Your task to perform on an android device: Add dell xps to the cart on costco, then select checkout. Image 0: 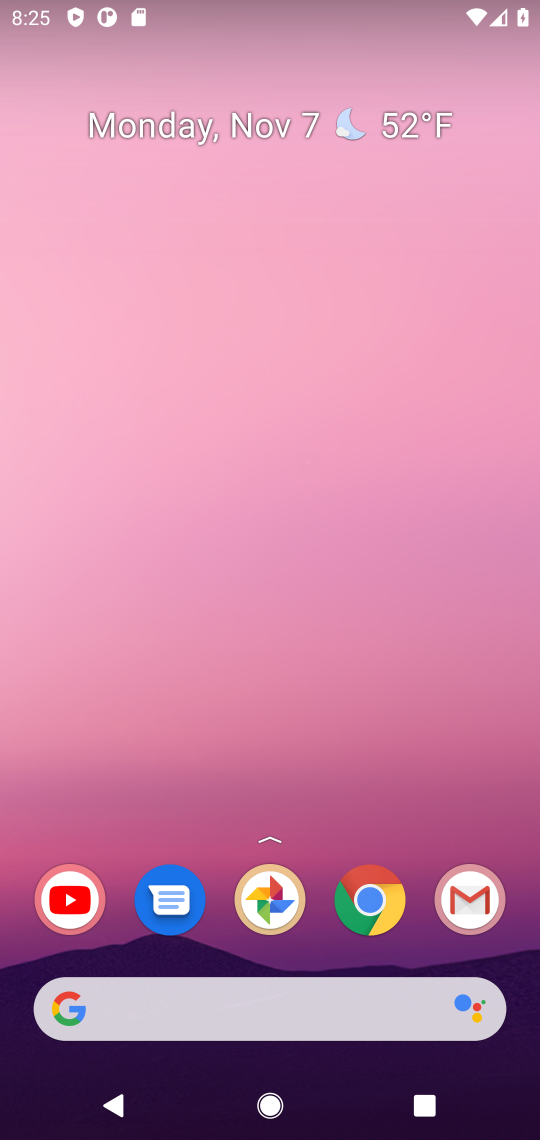
Step 0: click (252, 1012)
Your task to perform on an android device: Add dell xps to the cart on costco, then select checkout. Image 1: 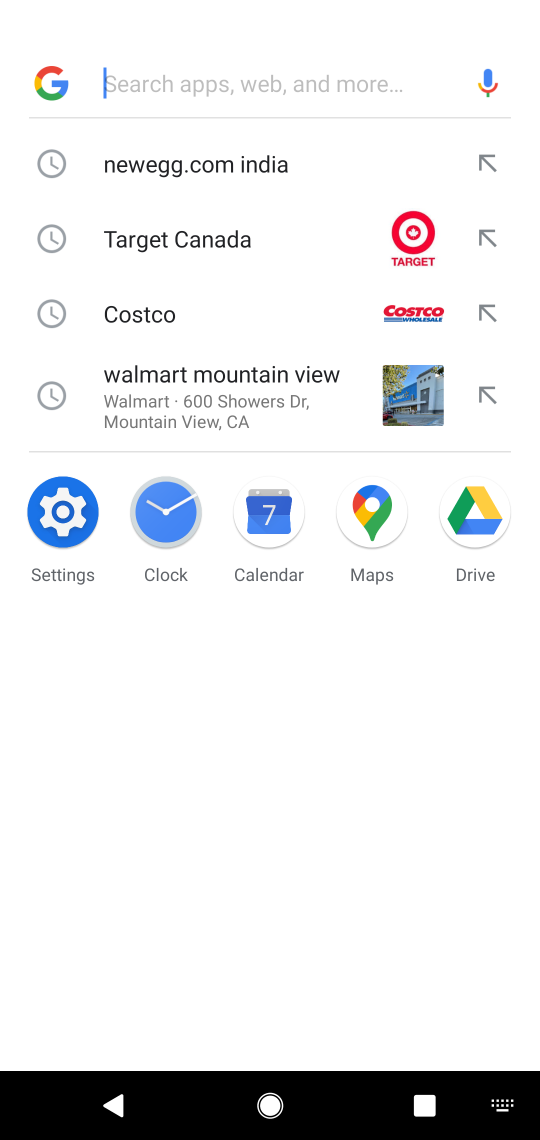
Step 1: click (280, 327)
Your task to perform on an android device: Add dell xps to the cart on costco, then select checkout. Image 2: 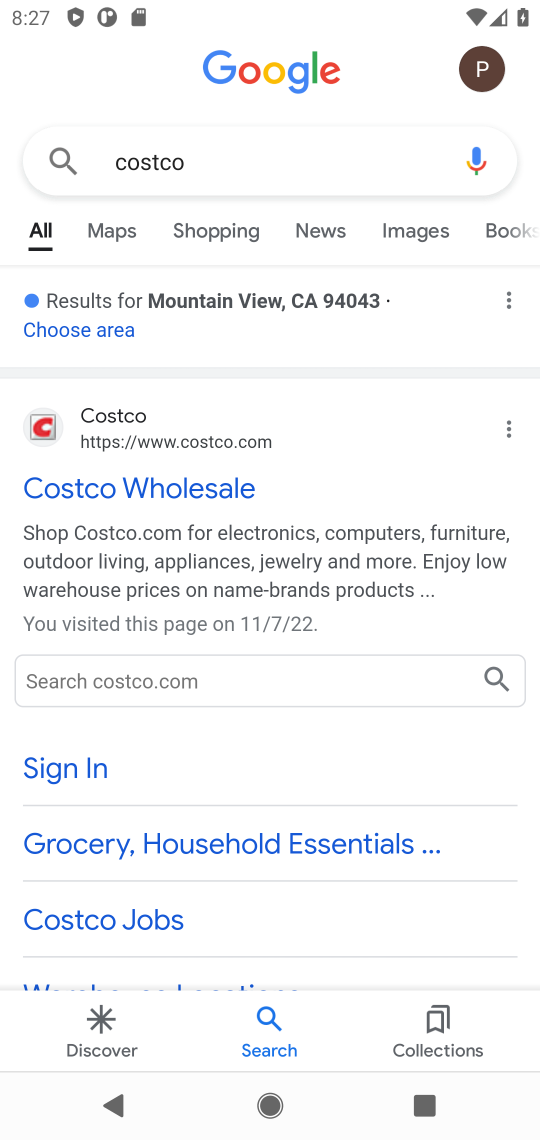
Step 2: click (151, 487)
Your task to perform on an android device: Add dell xps to the cart on costco, then select checkout. Image 3: 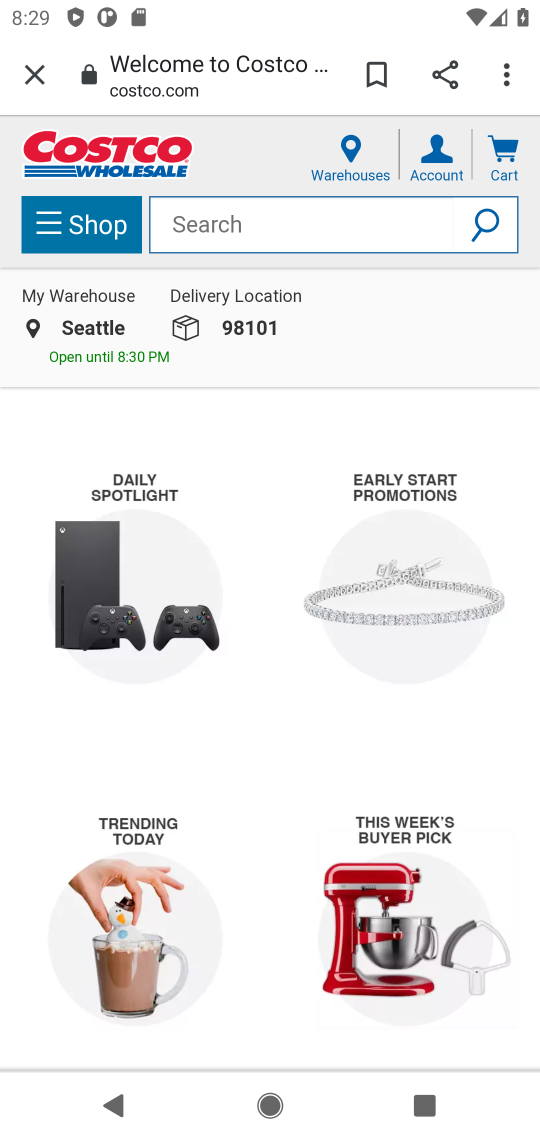
Step 3: task complete